Your task to perform on an android device: turn off priority inbox in the gmail app Image 0: 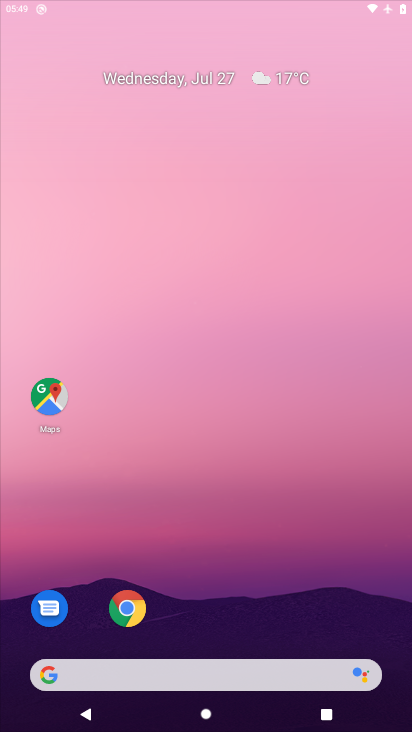
Step 0: press home button
Your task to perform on an android device: turn off priority inbox in the gmail app Image 1: 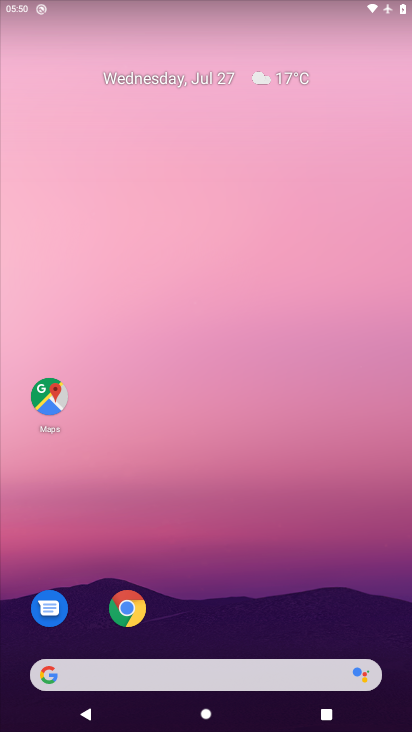
Step 1: drag from (278, 614) to (221, 305)
Your task to perform on an android device: turn off priority inbox in the gmail app Image 2: 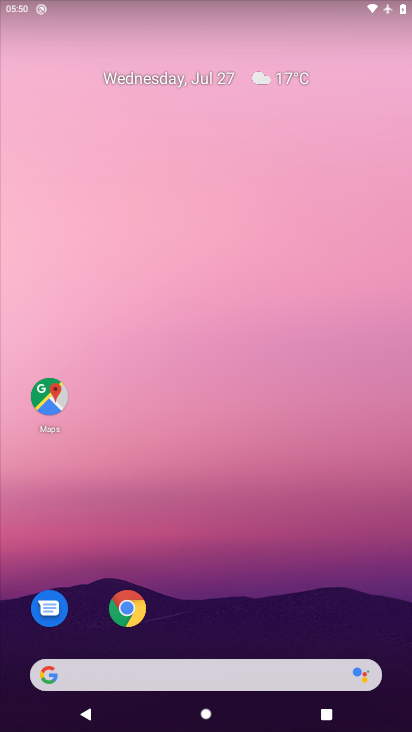
Step 2: drag from (242, 624) to (197, 5)
Your task to perform on an android device: turn off priority inbox in the gmail app Image 3: 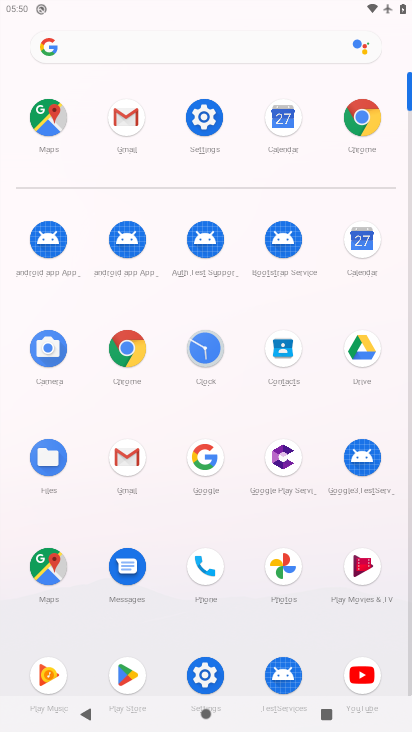
Step 3: click (127, 115)
Your task to perform on an android device: turn off priority inbox in the gmail app Image 4: 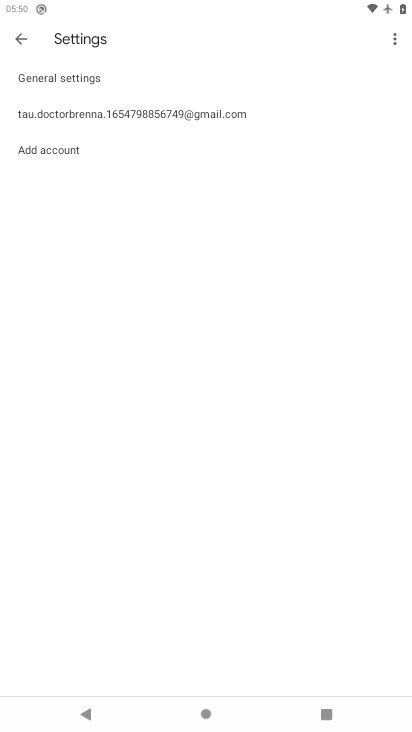
Step 4: click (102, 115)
Your task to perform on an android device: turn off priority inbox in the gmail app Image 5: 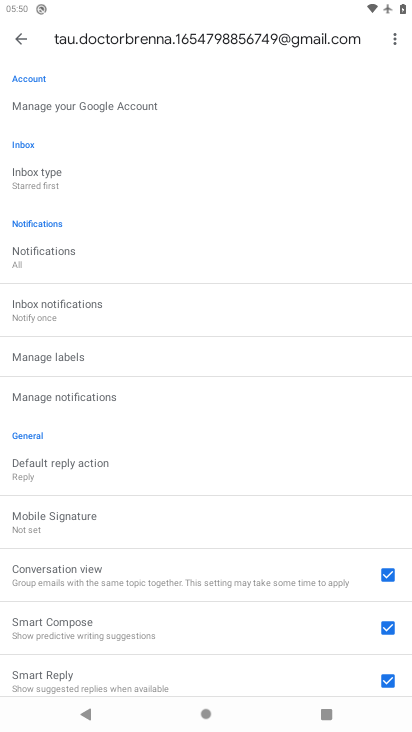
Step 5: click (42, 180)
Your task to perform on an android device: turn off priority inbox in the gmail app Image 6: 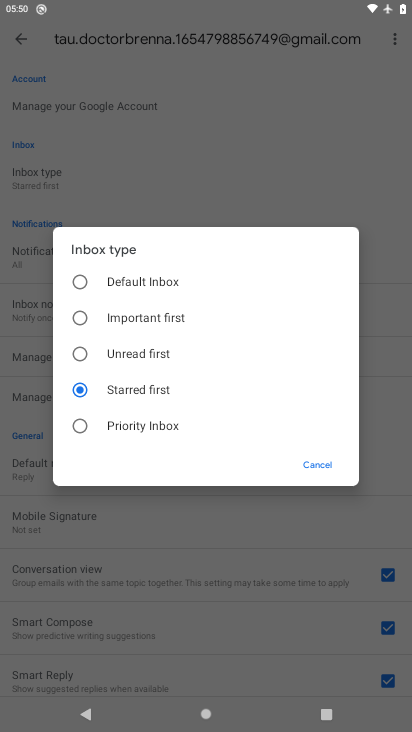
Step 6: click (76, 282)
Your task to perform on an android device: turn off priority inbox in the gmail app Image 7: 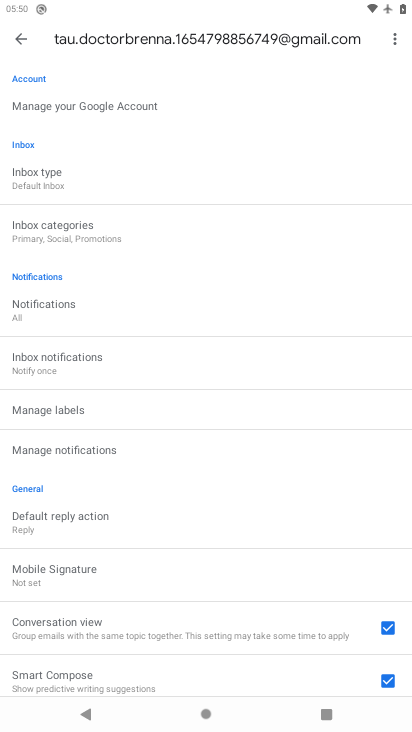
Step 7: task complete